Your task to perform on an android device: empty trash in google photos Image 0: 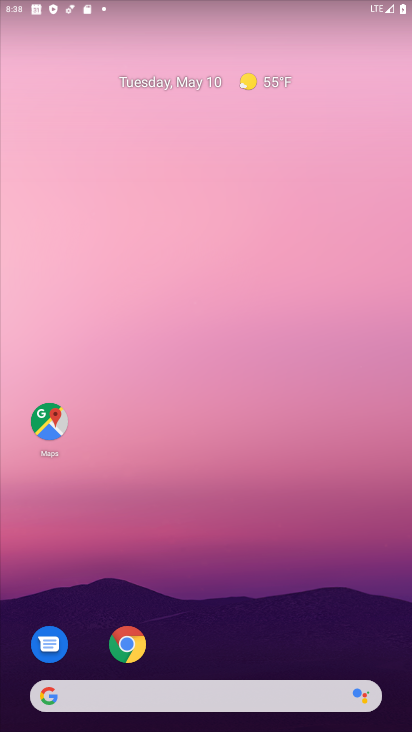
Step 0: drag from (310, 503) to (331, 199)
Your task to perform on an android device: empty trash in google photos Image 1: 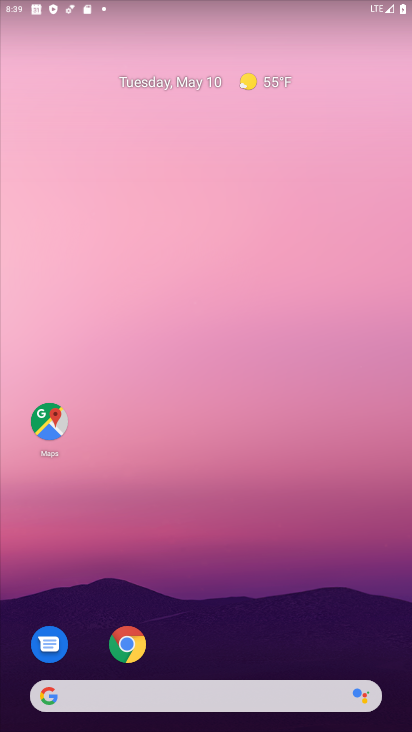
Step 1: drag from (173, 691) to (149, 524)
Your task to perform on an android device: empty trash in google photos Image 2: 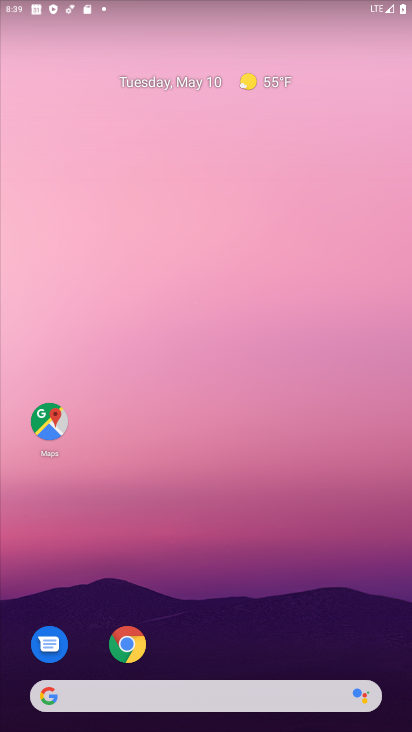
Step 2: drag from (162, 642) to (108, 299)
Your task to perform on an android device: empty trash in google photos Image 3: 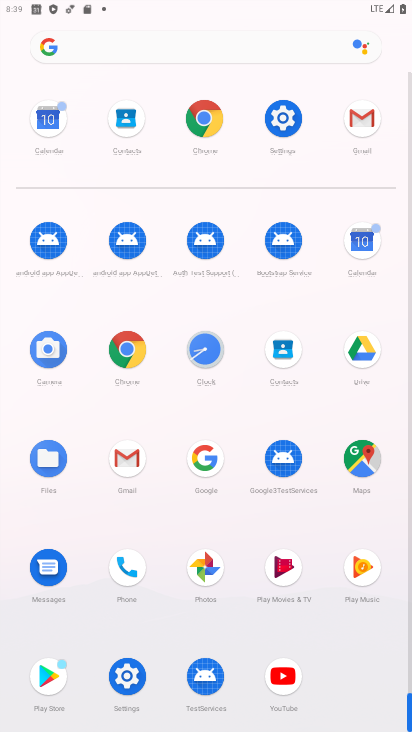
Step 3: click (202, 580)
Your task to perform on an android device: empty trash in google photos Image 4: 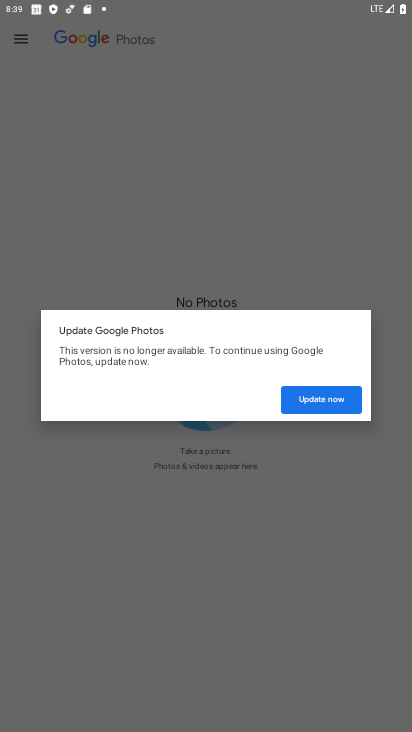
Step 4: task complete